Your task to perform on an android device: Open settings on Google Maps Image 0: 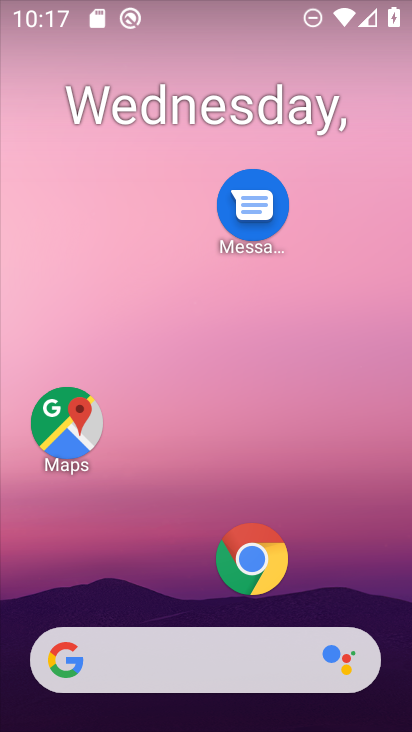
Step 0: drag from (163, 552) to (130, 76)
Your task to perform on an android device: Open settings on Google Maps Image 1: 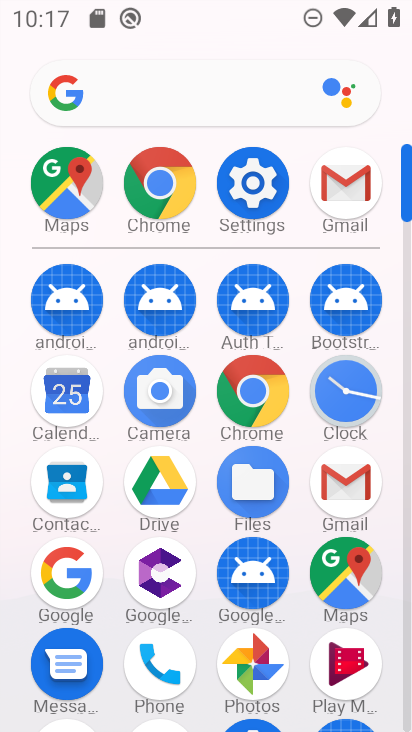
Step 1: click (348, 575)
Your task to perform on an android device: Open settings on Google Maps Image 2: 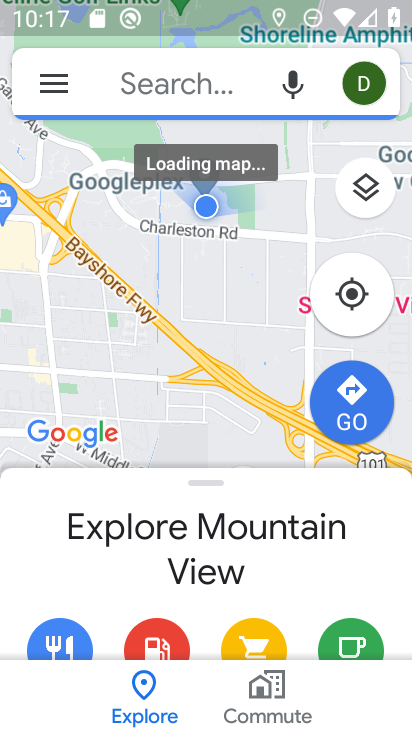
Step 2: click (56, 89)
Your task to perform on an android device: Open settings on Google Maps Image 3: 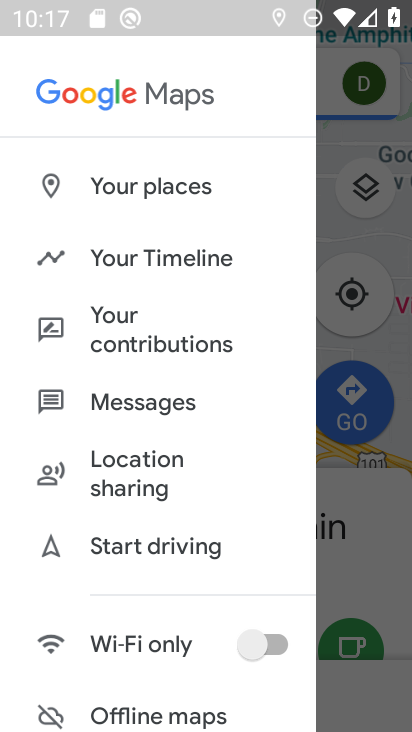
Step 3: drag from (156, 573) to (154, 260)
Your task to perform on an android device: Open settings on Google Maps Image 4: 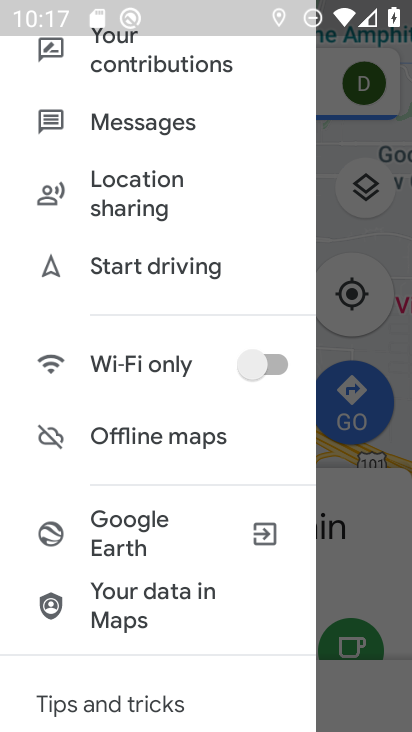
Step 4: drag from (150, 574) to (160, 230)
Your task to perform on an android device: Open settings on Google Maps Image 5: 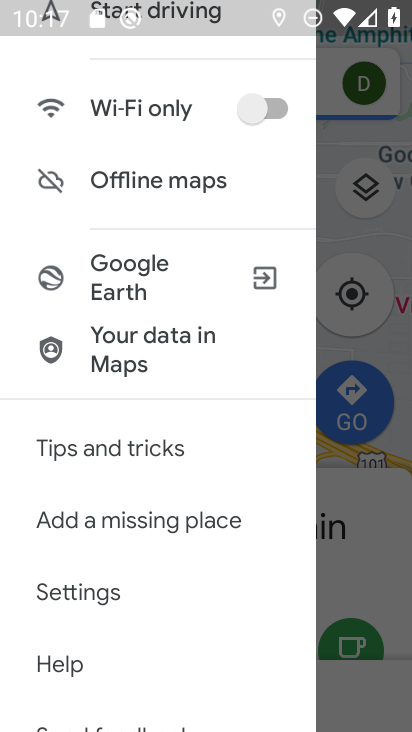
Step 5: click (81, 589)
Your task to perform on an android device: Open settings on Google Maps Image 6: 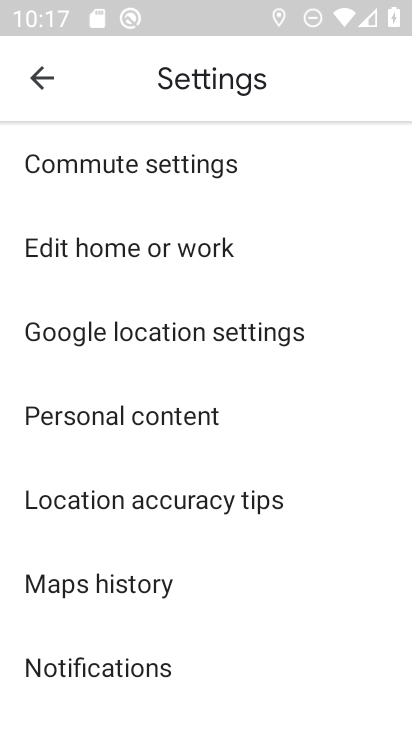
Step 6: click (35, 87)
Your task to perform on an android device: Open settings on Google Maps Image 7: 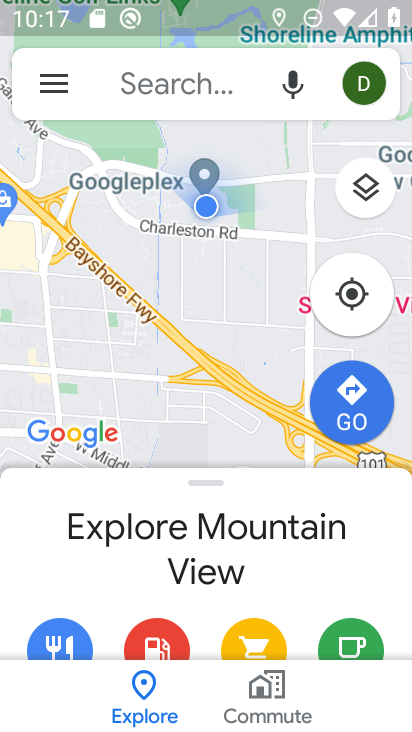
Step 7: task complete